Your task to perform on an android device: Open battery settings Image 0: 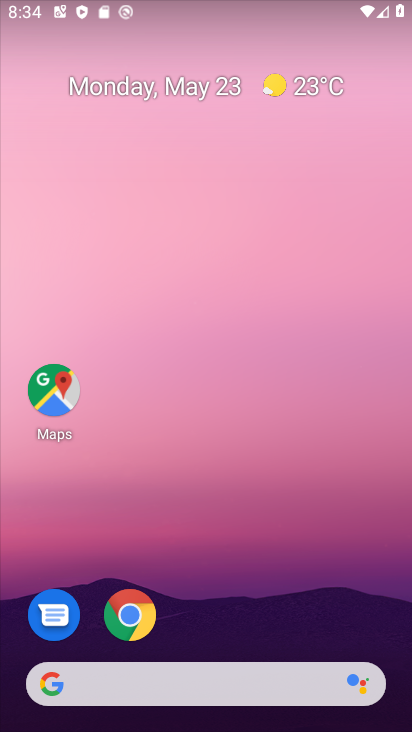
Step 0: drag from (260, 613) to (247, 185)
Your task to perform on an android device: Open battery settings Image 1: 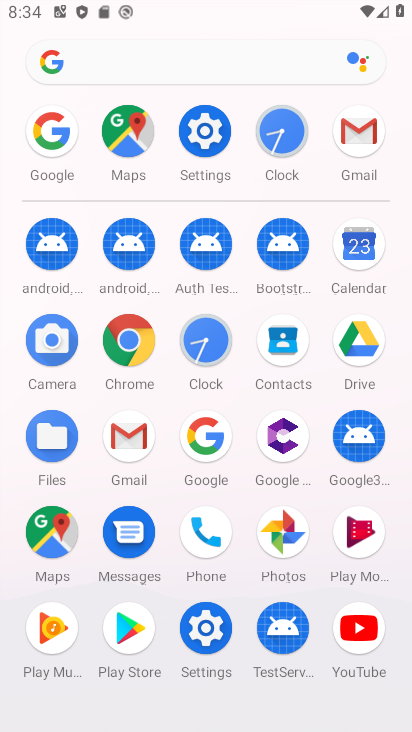
Step 1: click (204, 130)
Your task to perform on an android device: Open battery settings Image 2: 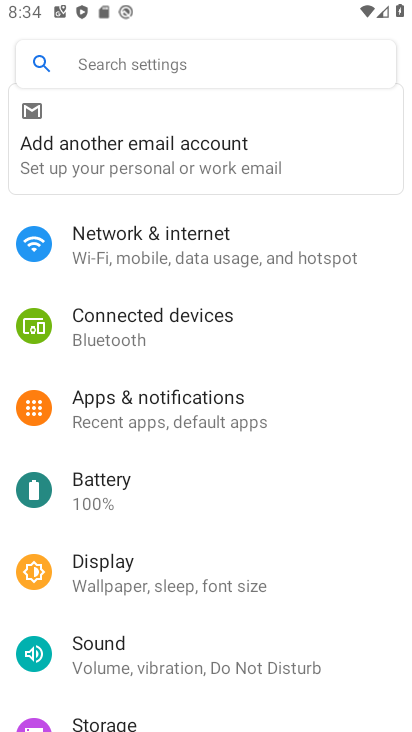
Step 2: click (101, 492)
Your task to perform on an android device: Open battery settings Image 3: 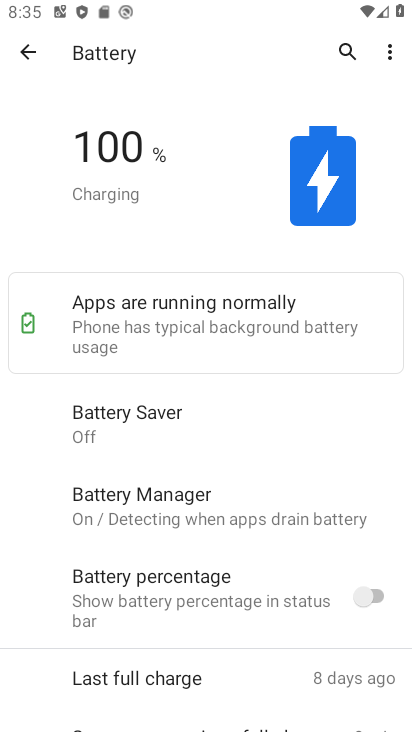
Step 3: task complete